Your task to perform on an android device: Turn off the flashlight Image 0: 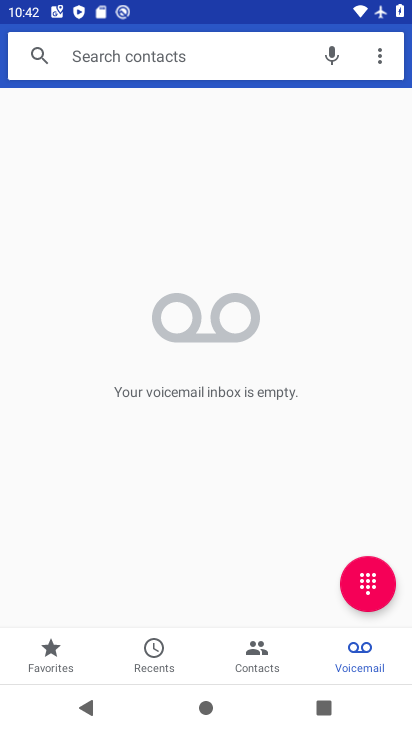
Step 0: press home button
Your task to perform on an android device: Turn off the flashlight Image 1: 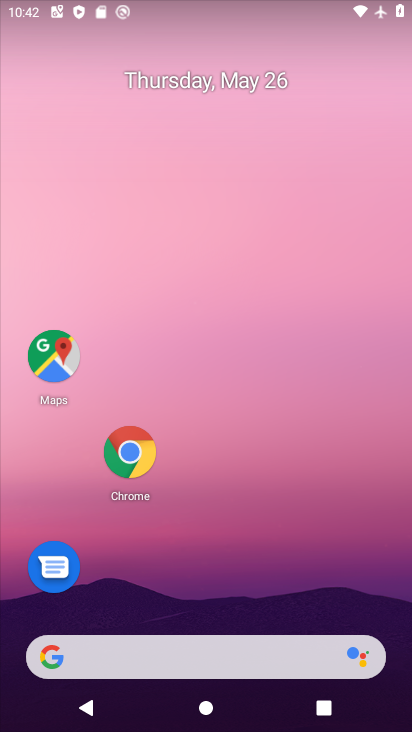
Step 1: task complete